Your task to perform on an android device: change the upload size in google photos Image 0: 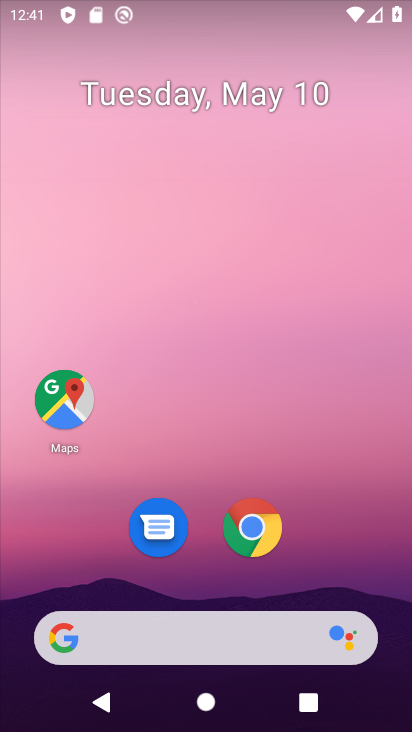
Step 0: drag from (320, 531) to (322, 167)
Your task to perform on an android device: change the upload size in google photos Image 1: 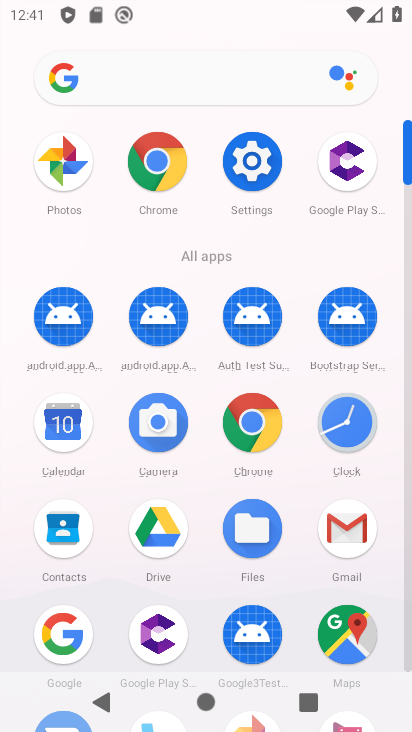
Step 1: drag from (308, 622) to (319, 303)
Your task to perform on an android device: change the upload size in google photos Image 2: 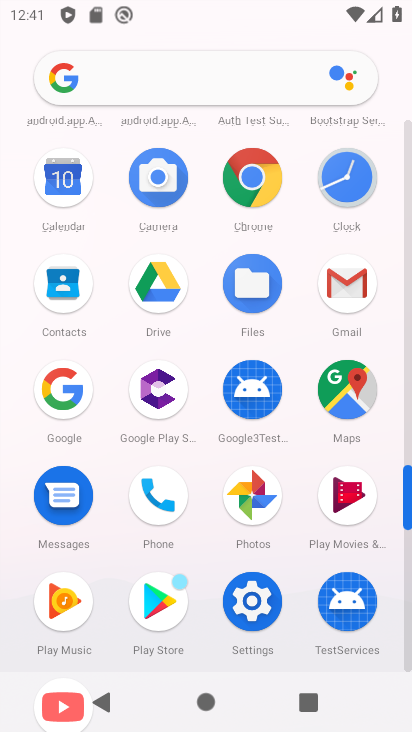
Step 2: click (269, 491)
Your task to perform on an android device: change the upload size in google photos Image 3: 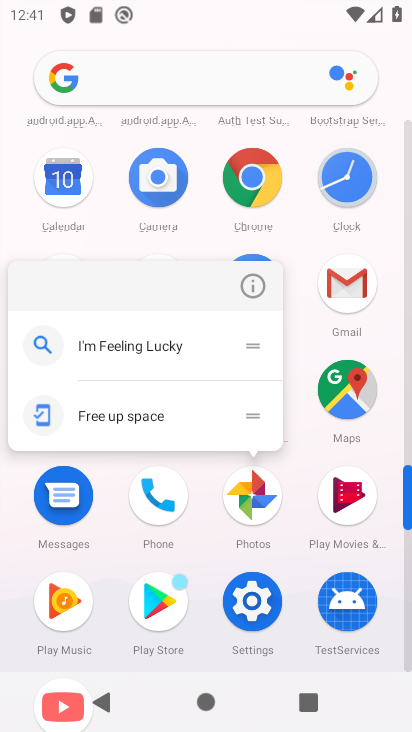
Step 3: click (257, 511)
Your task to perform on an android device: change the upload size in google photos Image 4: 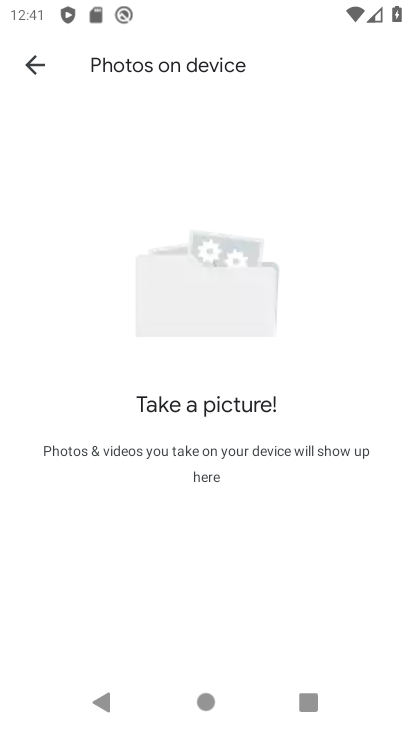
Step 4: press back button
Your task to perform on an android device: change the upload size in google photos Image 5: 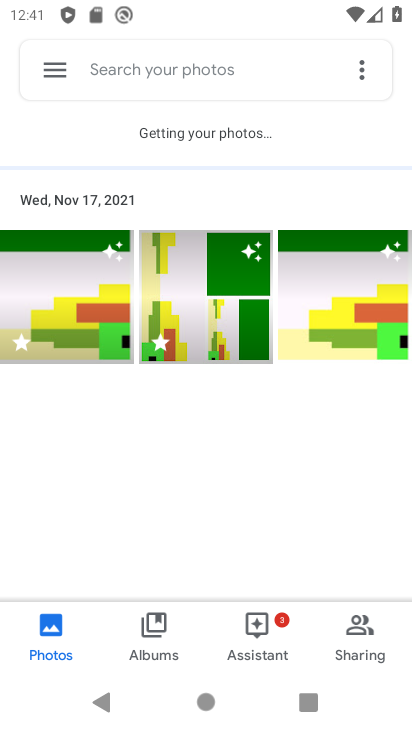
Step 5: click (51, 72)
Your task to perform on an android device: change the upload size in google photos Image 6: 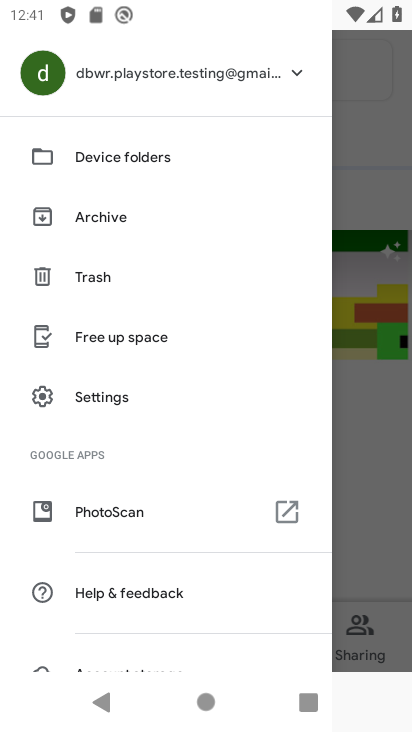
Step 6: click (103, 405)
Your task to perform on an android device: change the upload size in google photos Image 7: 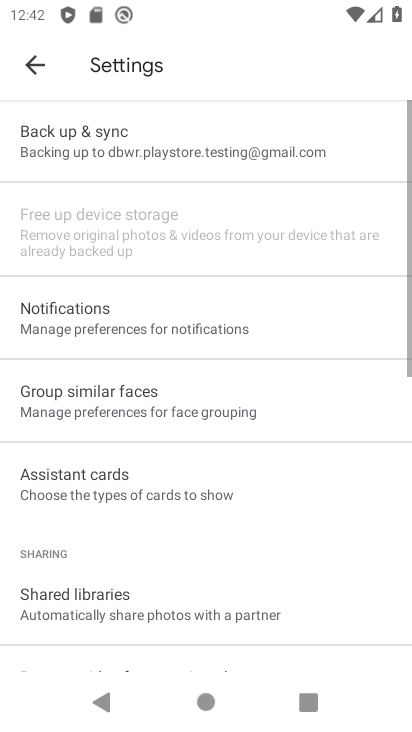
Step 7: click (151, 155)
Your task to perform on an android device: change the upload size in google photos Image 8: 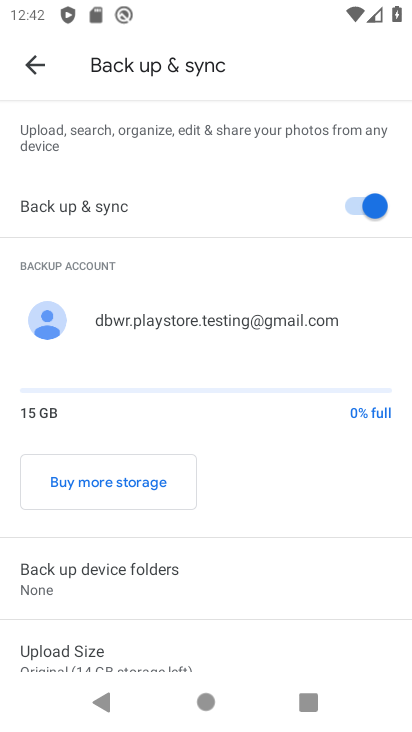
Step 8: drag from (130, 604) to (162, 322)
Your task to perform on an android device: change the upload size in google photos Image 9: 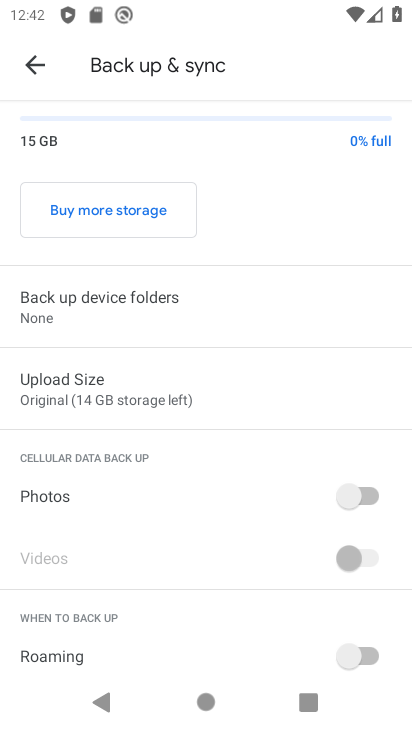
Step 9: click (139, 393)
Your task to perform on an android device: change the upload size in google photos Image 10: 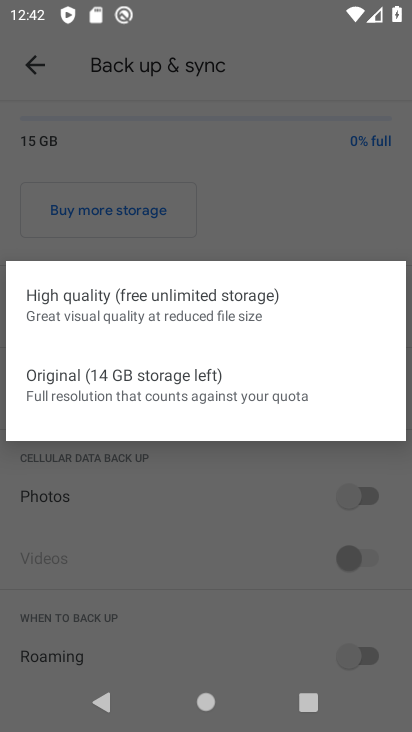
Step 10: click (159, 307)
Your task to perform on an android device: change the upload size in google photos Image 11: 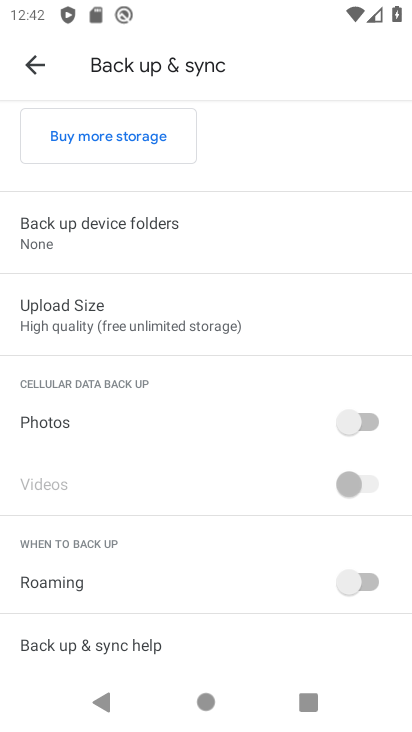
Step 11: task complete